Your task to perform on an android device: Open Android settings Image 0: 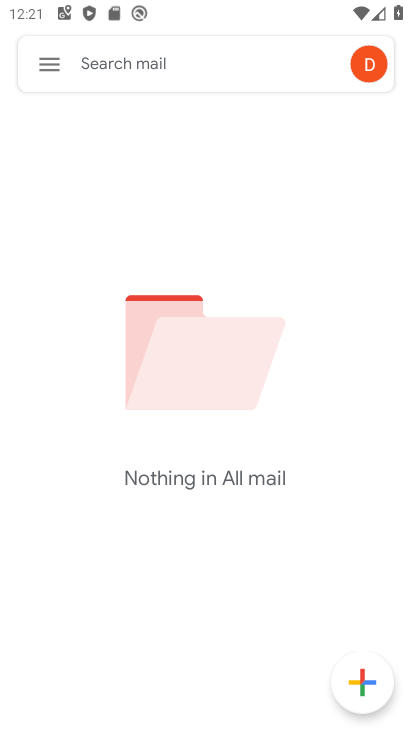
Step 0: press home button
Your task to perform on an android device: Open Android settings Image 1: 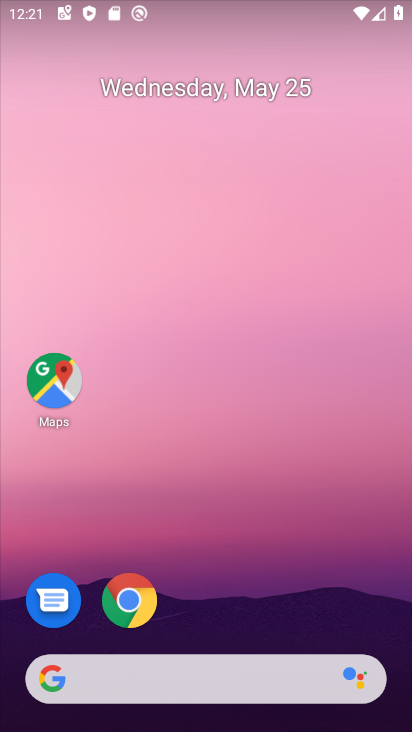
Step 1: drag from (256, 638) to (226, 93)
Your task to perform on an android device: Open Android settings Image 2: 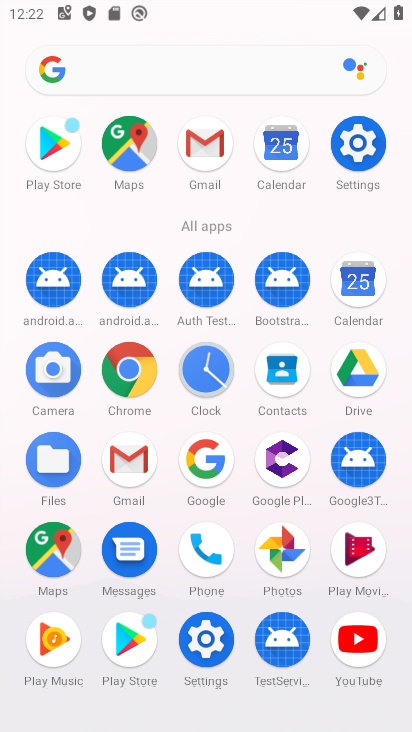
Step 2: click (369, 141)
Your task to perform on an android device: Open Android settings Image 3: 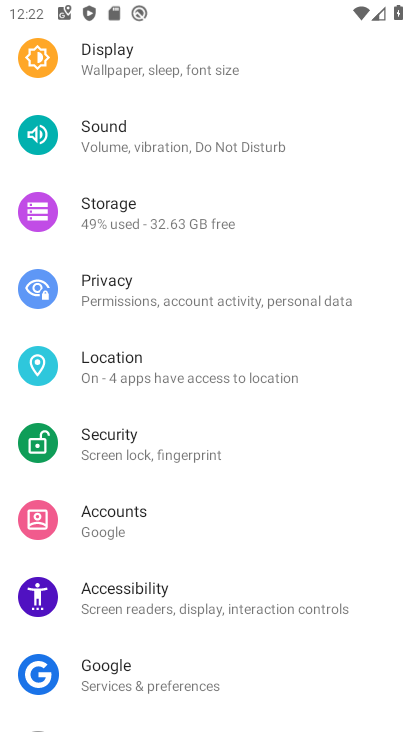
Step 3: drag from (203, 652) to (167, 223)
Your task to perform on an android device: Open Android settings Image 4: 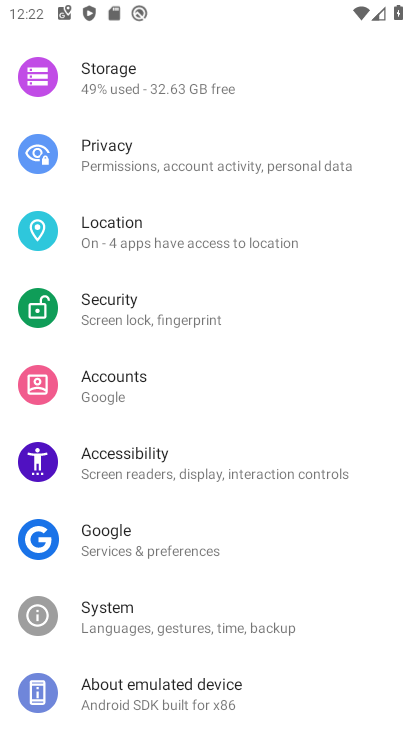
Step 4: click (151, 625)
Your task to perform on an android device: Open Android settings Image 5: 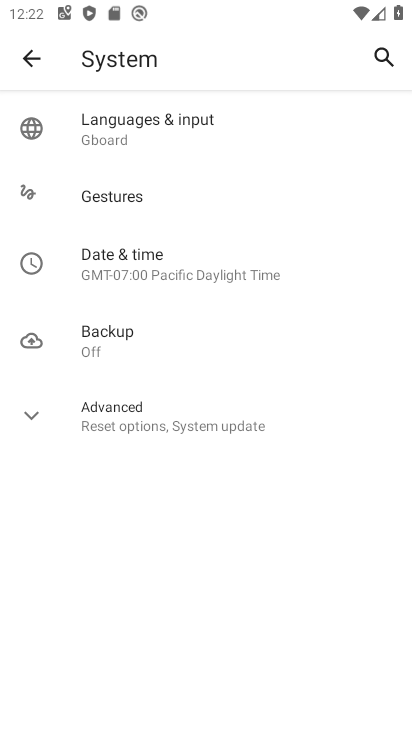
Step 5: task complete